Your task to perform on an android device: turn on sleep mode Image 0: 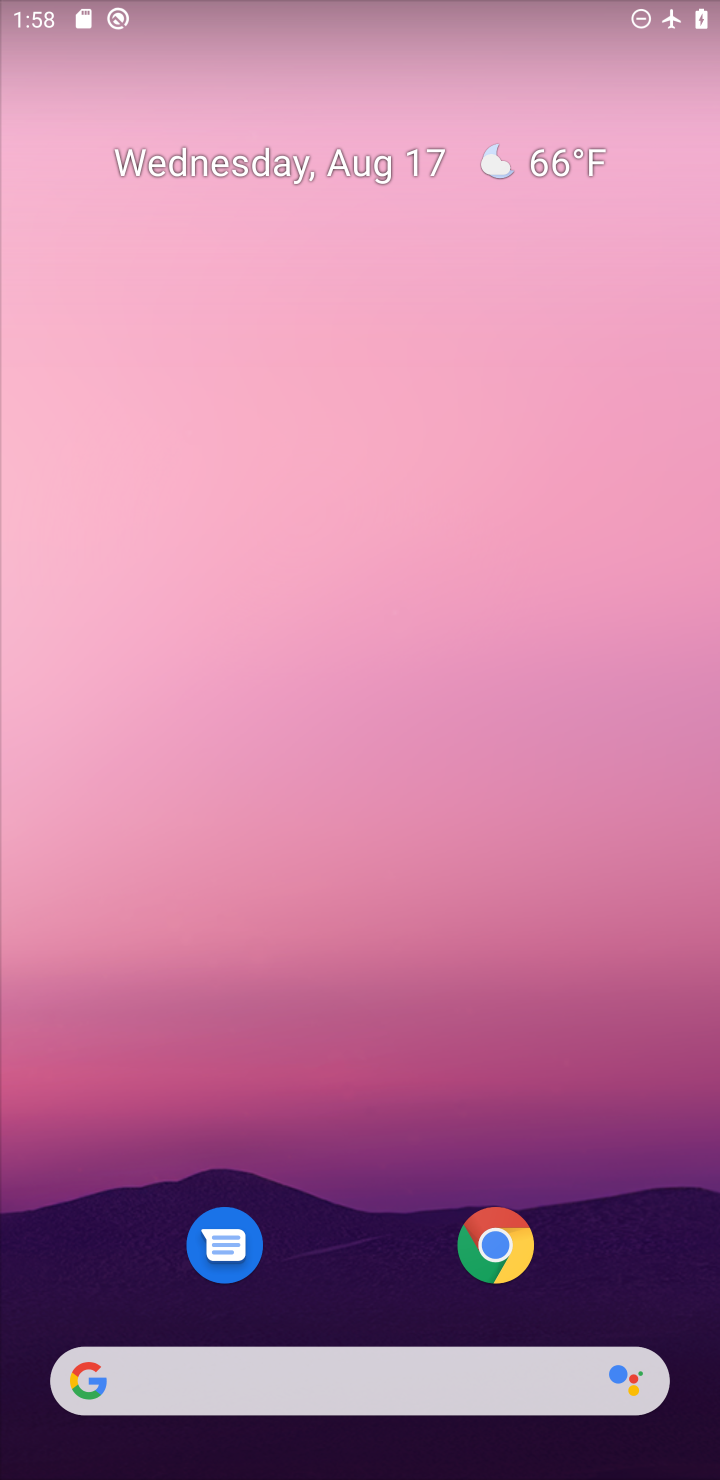
Step 0: drag from (348, 1149) to (348, 209)
Your task to perform on an android device: turn on sleep mode Image 1: 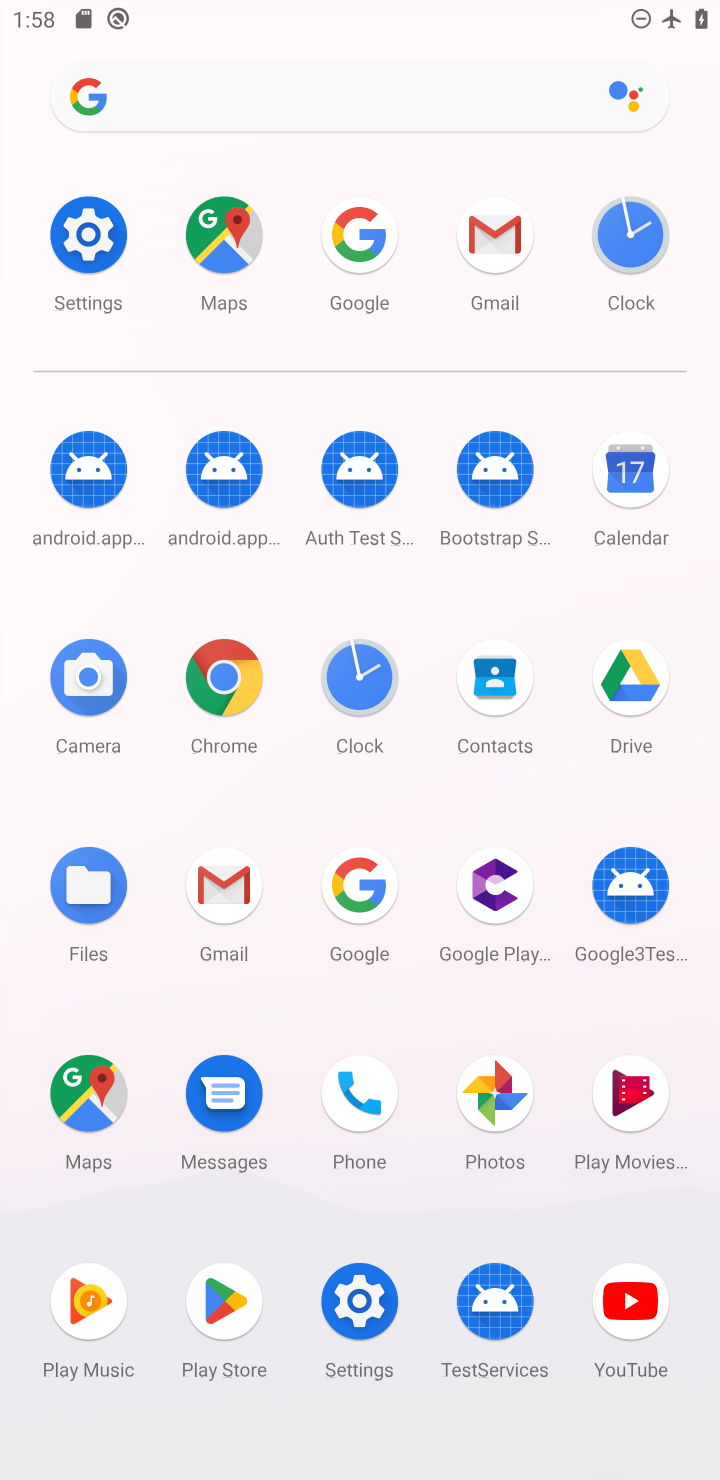
Step 1: click (82, 233)
Your task to perform on an android device: turn on sleep mode Image 2: 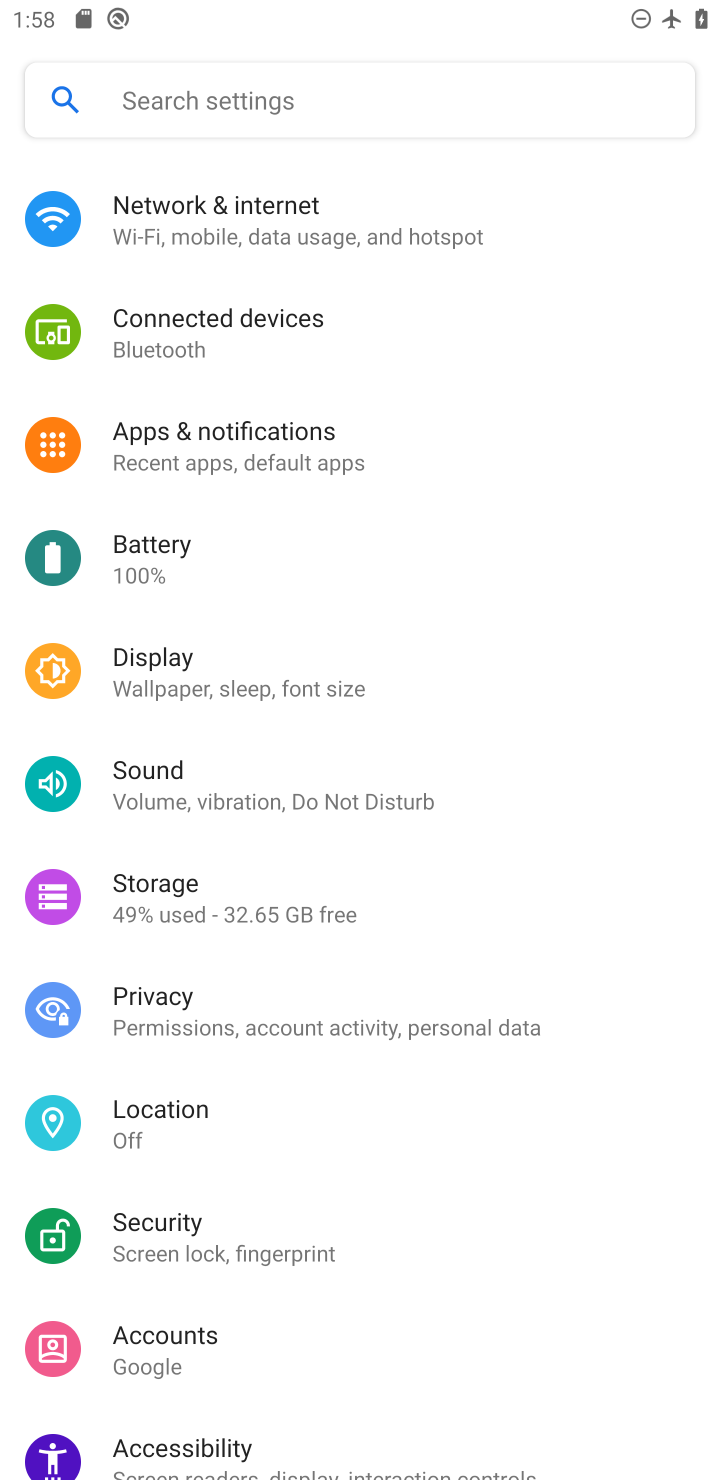
Step 2: click (253, 693)
Your task to perform on an android device: turn on sleep mode Image 3: 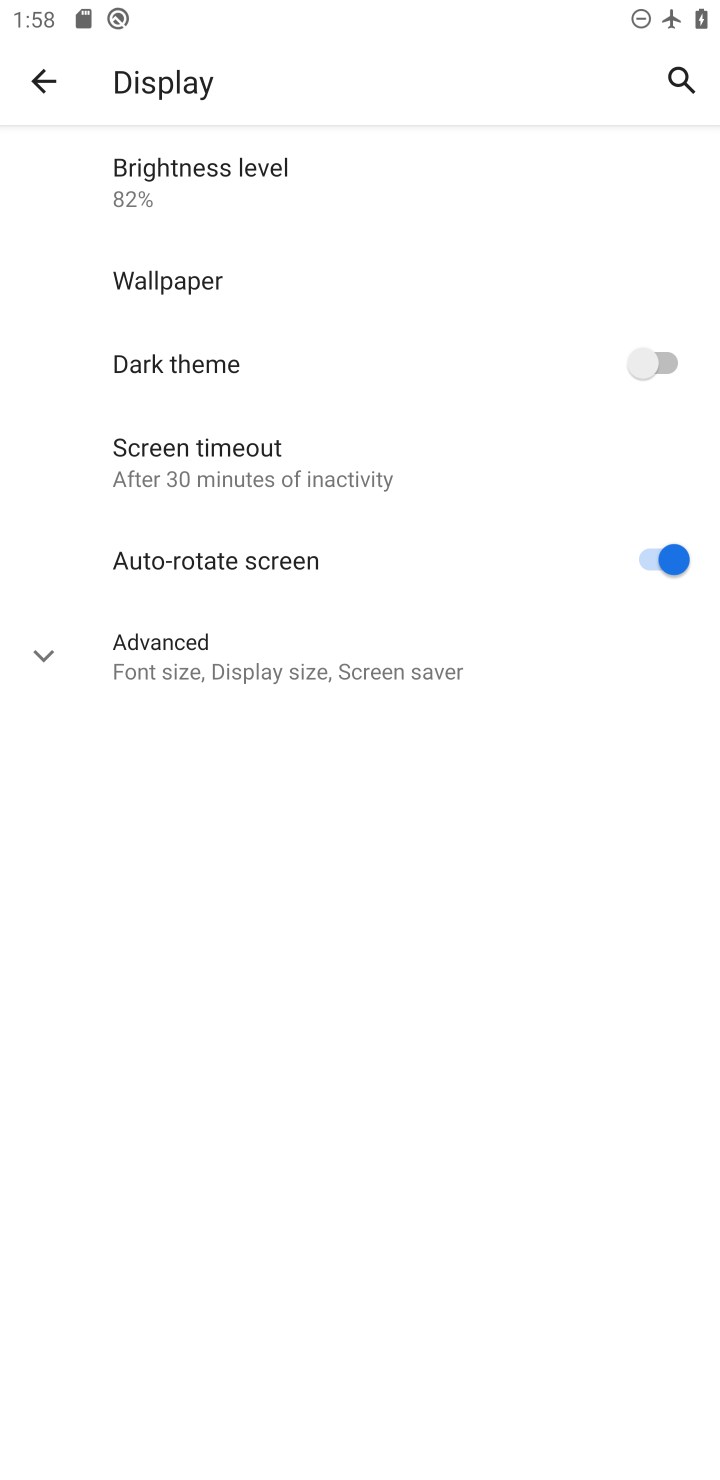
Step 3: task complete